Your task to perform on an android device: toggle translation in the chrome app Image 0: 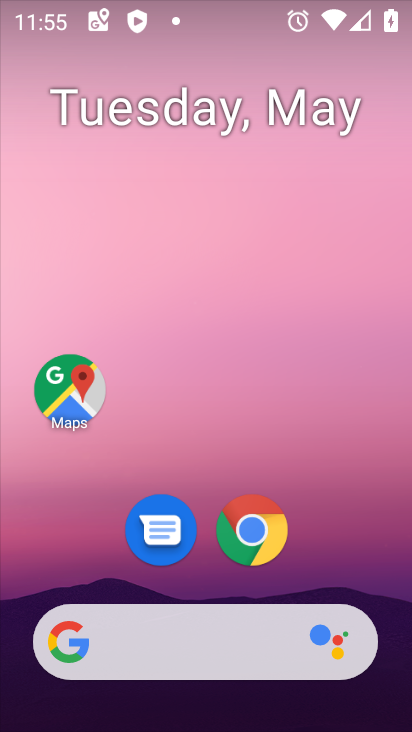
Step 0: click (254, 531)
Your task to perform on an android device: toggle translation in the chrome app Image 1: 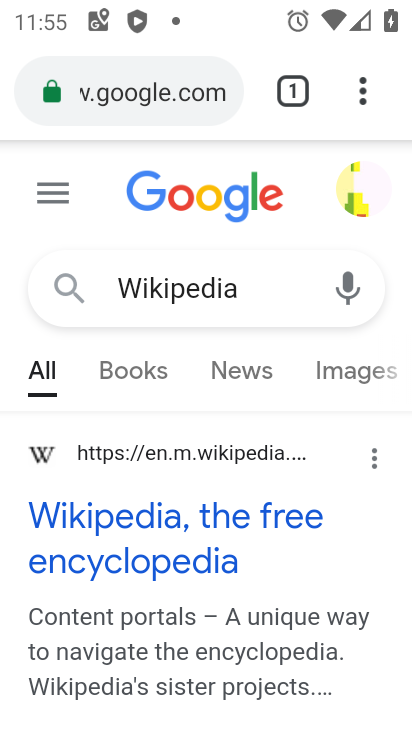
Step 1: click (362, 94)
Your task to perform on an android device: toggle translation in the chrome app Image 2: 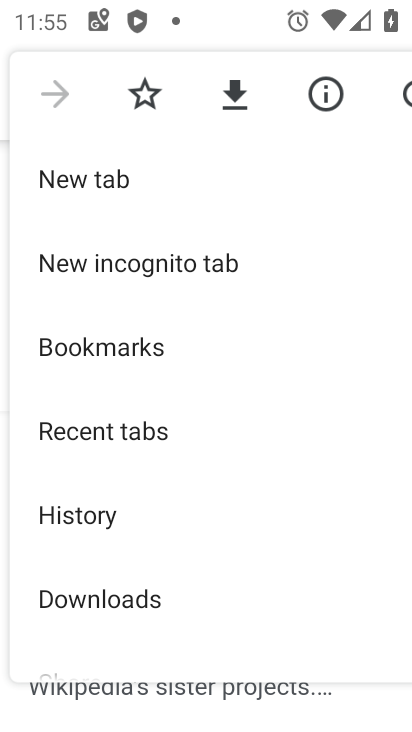
Step 2: drag from (114, 560) to (225, 222)
Your task to perform on an android device: toggle translation in the chrome app Image 3: 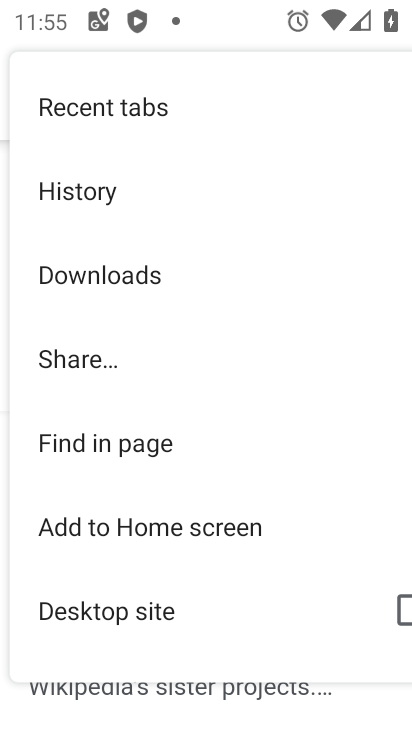
Step 3: drag from (123, 586) to (295, 97)
Your task to perform on an android device: toggle translation in the chrome app Image 4: 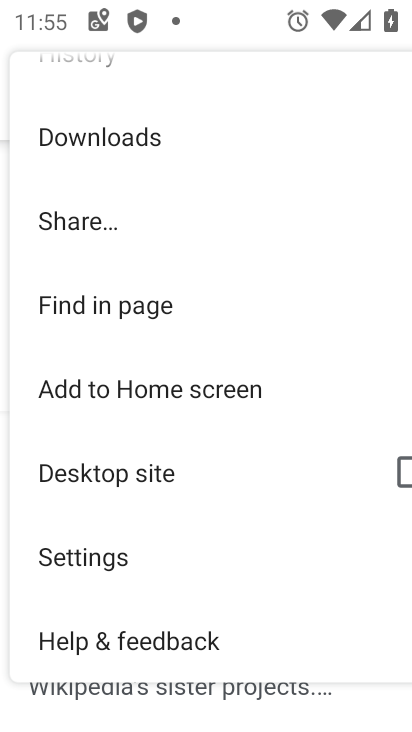
Step 4: click (95, 563)
Your task to perform on an android device: toggle translation in the chrome app Image 5: 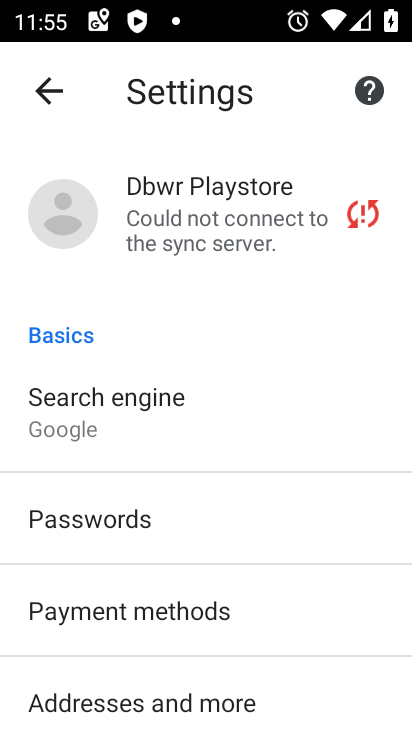
Step 5: drag from (234, 643) to (340, 304)
Your task to perform on an android device: toggle translation in the chrome app Image 6: 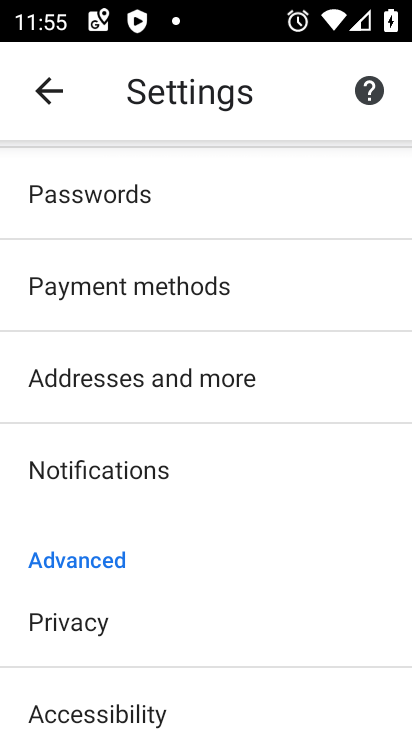
Step 6: drag from (172, 635) to (249, 272)
Your task to perform on an android device: toggle translation in the chrome app Image 7: 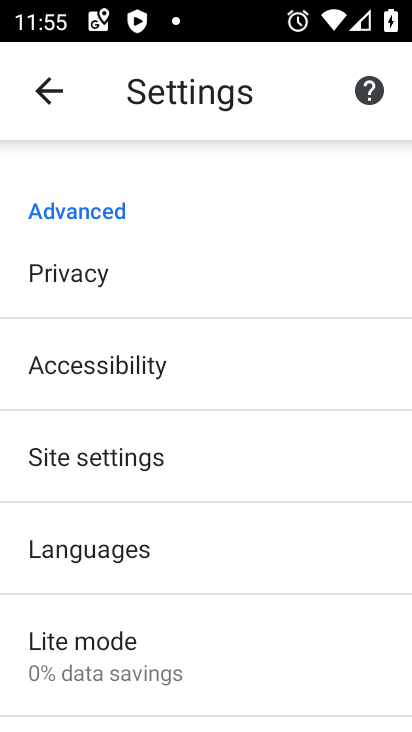
Step 7: click (123, 558)
Your task to perform on an android device: toggle translation in the chrome app Image 8: 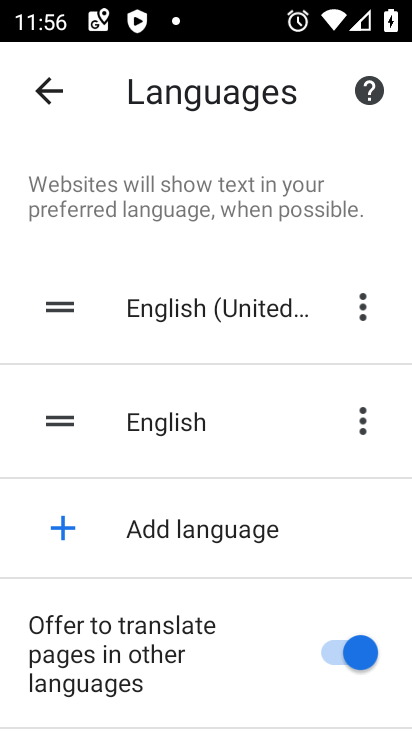
Step 8: click (342, 653)
Your task to perform on an android device: toggle translation in the chrome app Image 9: 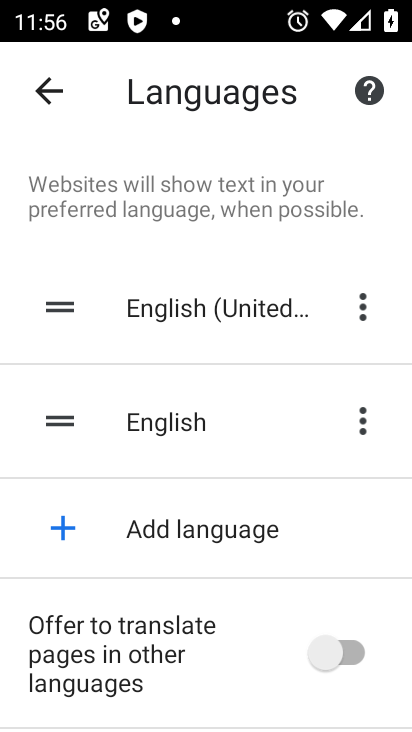
Step 9: task complete